Your task to perform on an android device: open a bookmark in the chrome app Image 0: 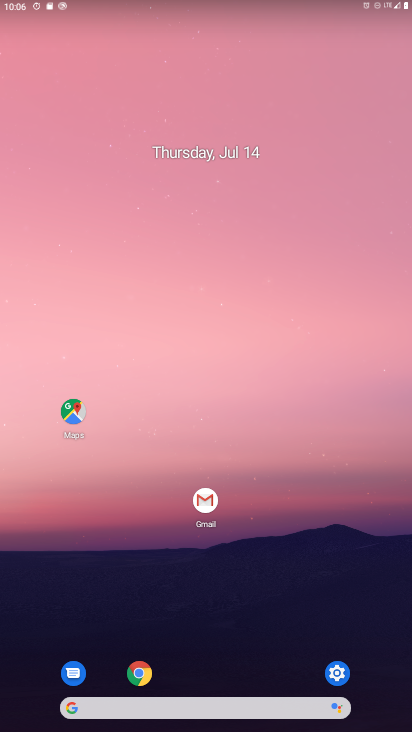
Step 0: press home button
Your task to perform on an android device: open a bookmark in the chrome app Image 1: 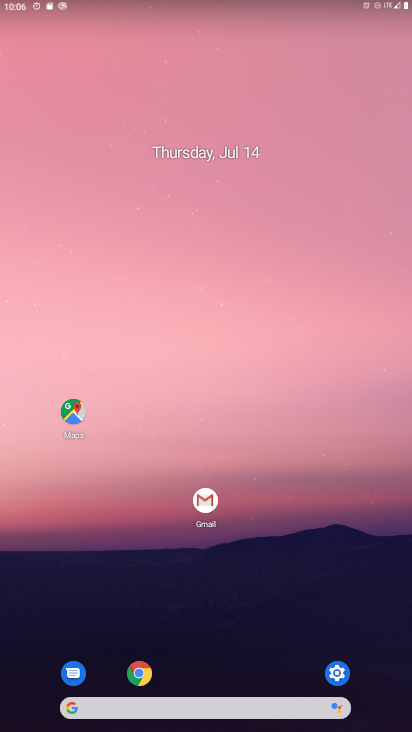
Step 1: click (140, 675)
Your task to perform on an android device: open a bookmark in the chrome app Image 2: 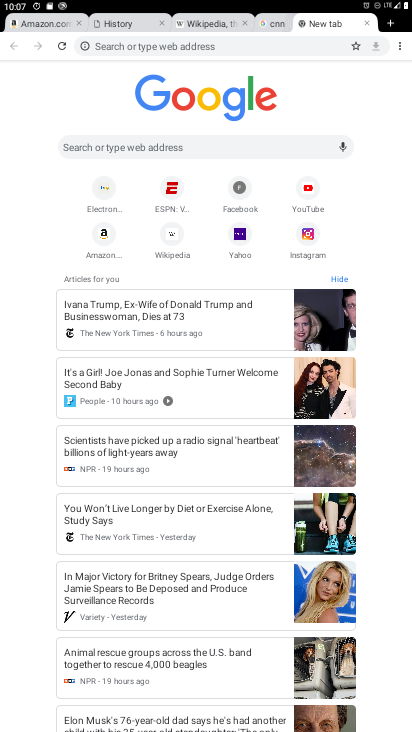
Step 2: click (404, 49)
Your task to perform on an android device: open a bookmark in the chrome app Image 3: 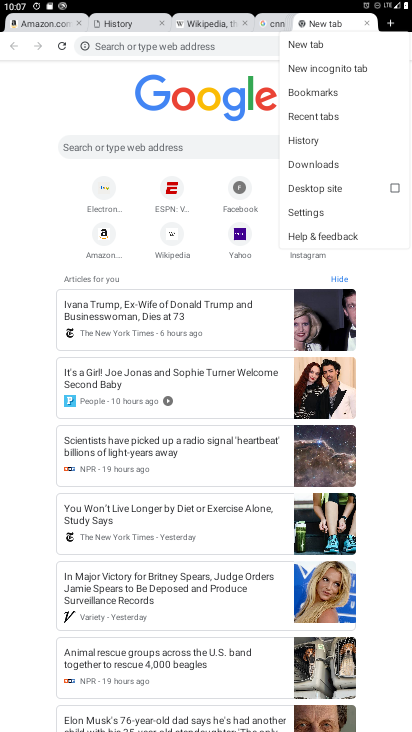
Step 3: click (317, 89)
Your task to perform on an android device: open a bookmark in the chrome app Image 4: 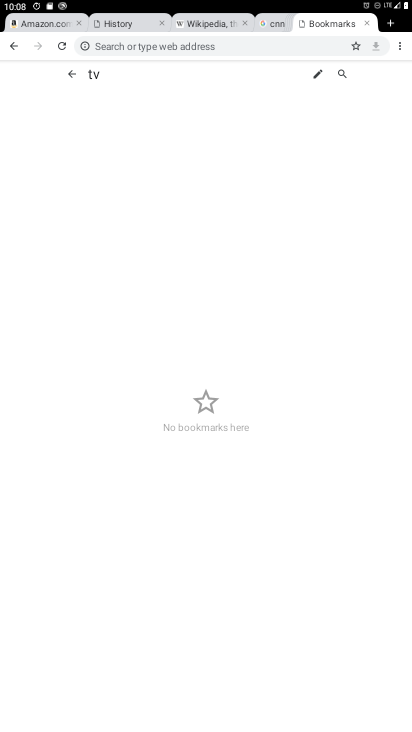
Step 4: task complete